Your task to perform on an android device: Go to Reddit.com Image 0: 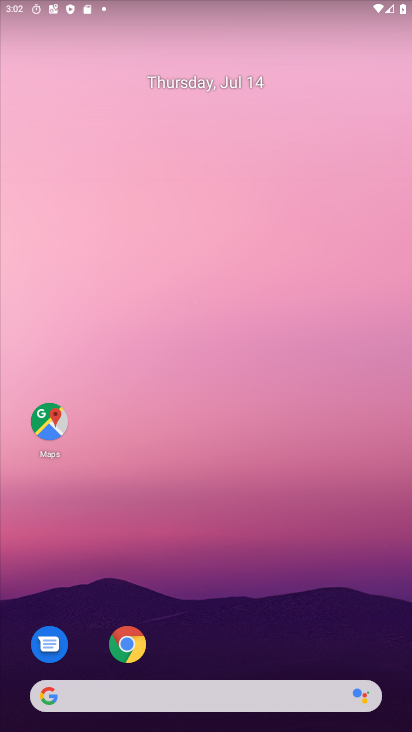
Step 0: click (67, 688)
Your task to perform on an android device: Go to Reddit.com Image 1: 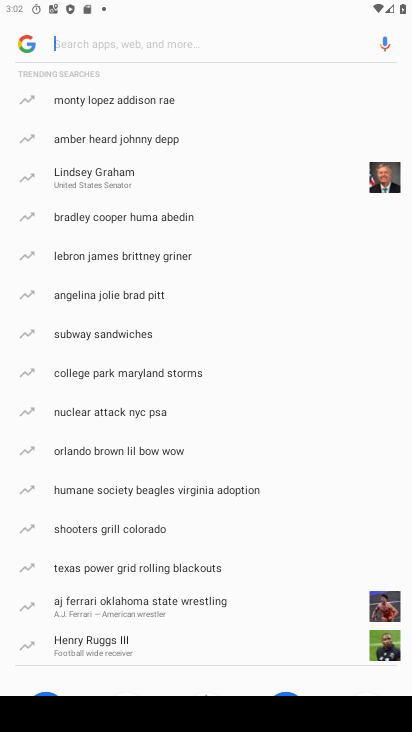
Step 1: type "Reddit.com"
Your task to perform on an android device: Go to Reddit.com Image 2: 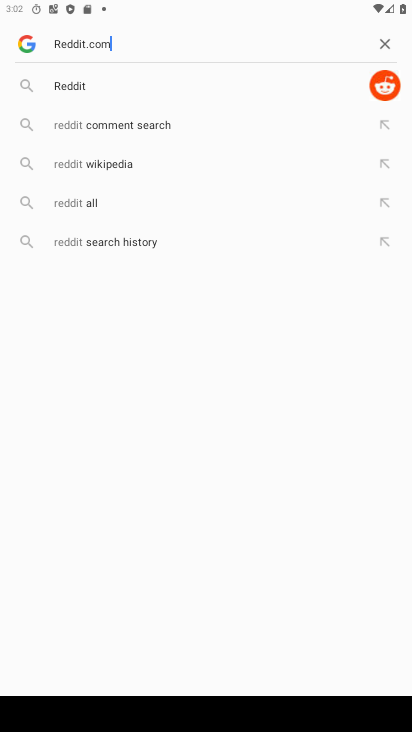
Step 2: type ""
Your task to perform on an android device: Go to Reddit.com Image 3: 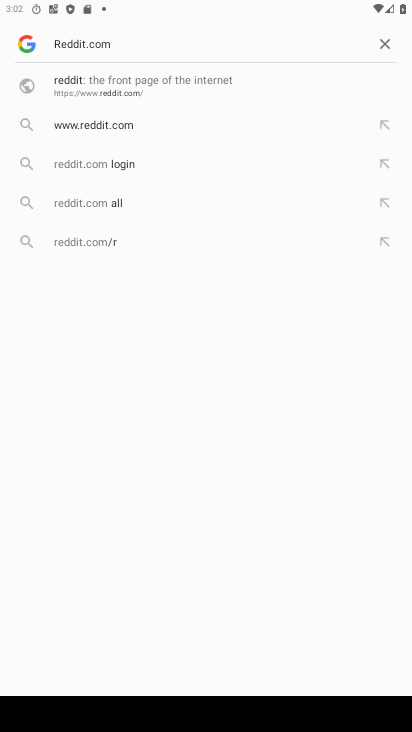
Step 3: click (89, 85)
Your task to perform on an android device: Go to Reddit.com Image 4: 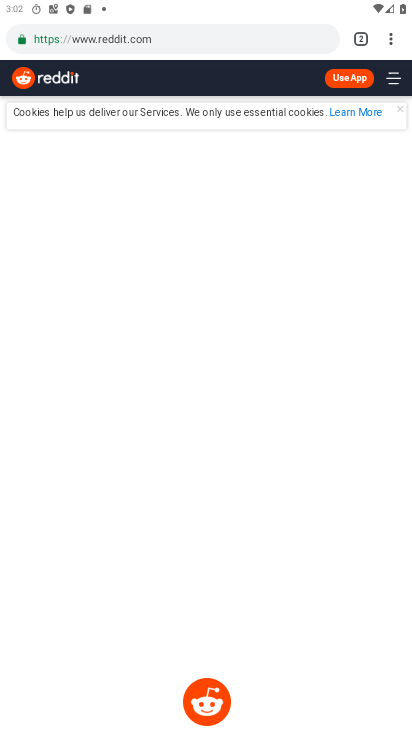
Step 4: task complete